Your task to perform on an android device: See recent photos Image 0: 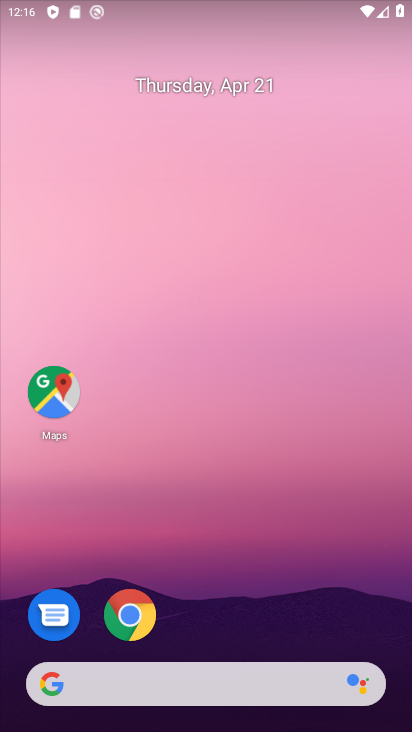
Step 0: drag from (221, 397) to (244, 3)
Your task to perform on an android device: See recent photos Image 1: 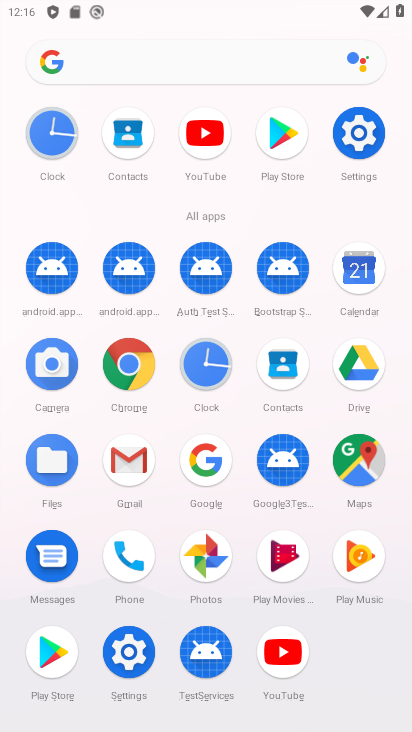
Step 1: click (191, 563)
Your task to perform on an android device: See recent photos Image 2: 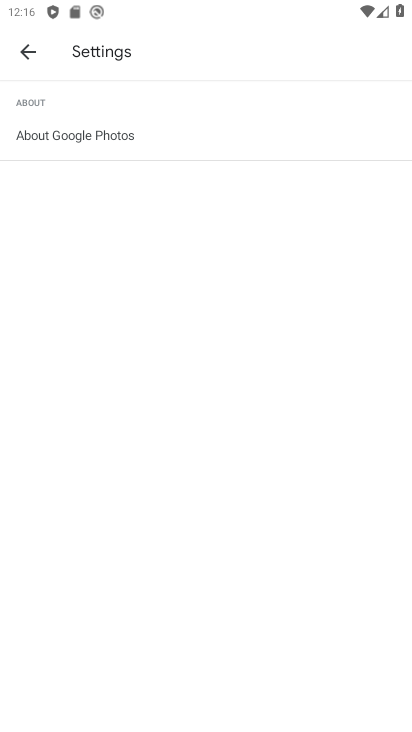
Step 2: click (32, 59)
Your task to perform on an android device: See recent photos Image 3: 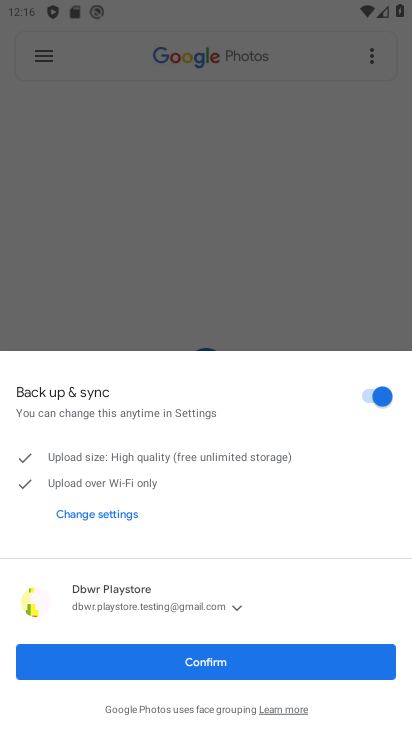
Step 3: click (197, 662)
Your task to perform on an android device: See recent photos Image 4: 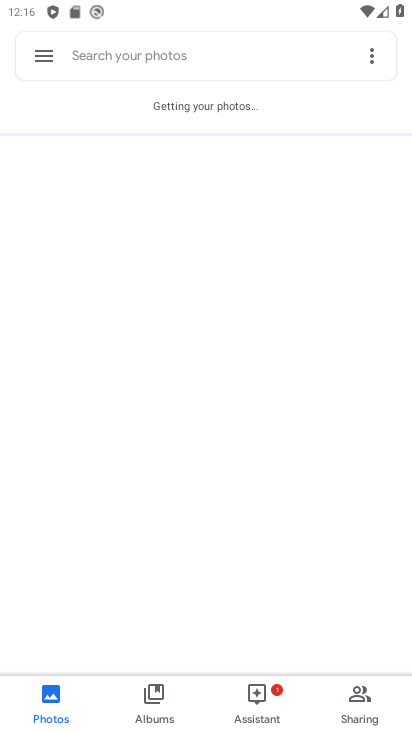
Step 4: click (50, 718)
Your task to perform on an android device: See recent photos Image 5: 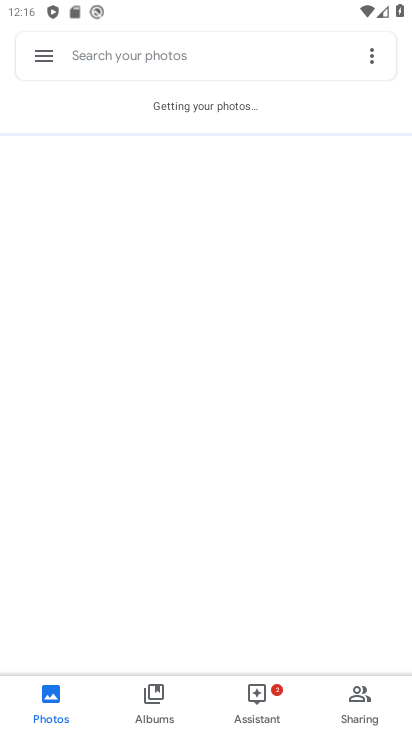
Step 5: task complete